Your task to perform on an android device: set the timer Image 0: 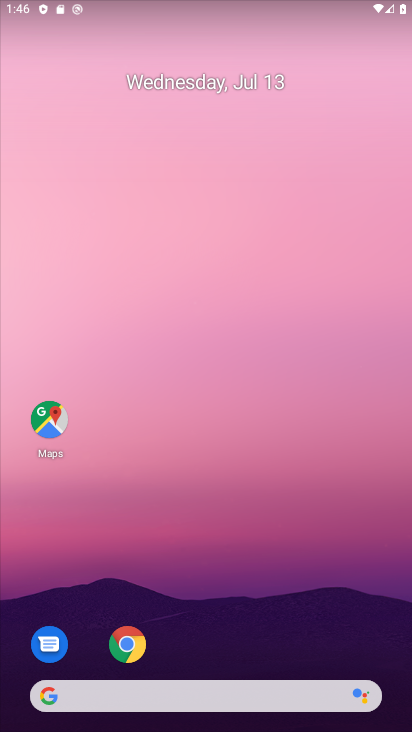
Step 0: drag from (216, 636) to (294, 2)
Your task to perform on an android device: set the timer Image 1: 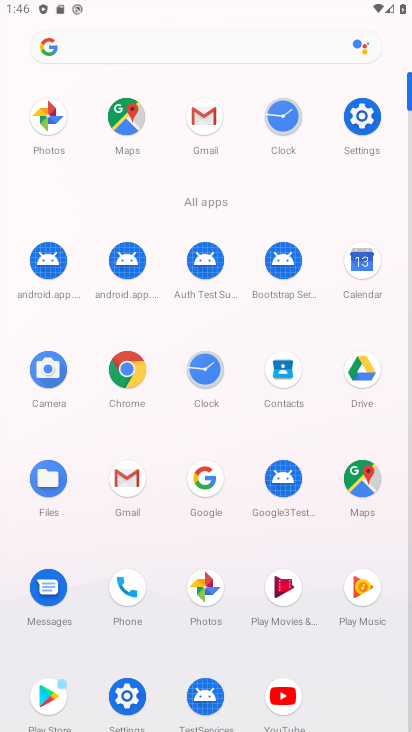
Step 1: click (286, 119)
Your task to perform on an android device: set the timer Image 2: 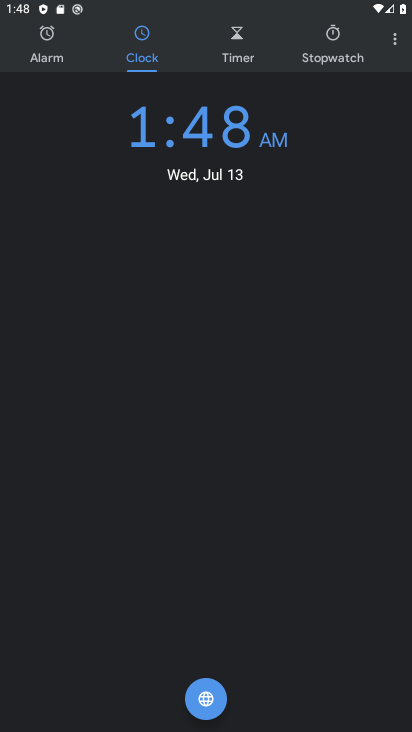
Step 2: click (242, 35)
Your task to perform on an android device: set the timer Image 3: 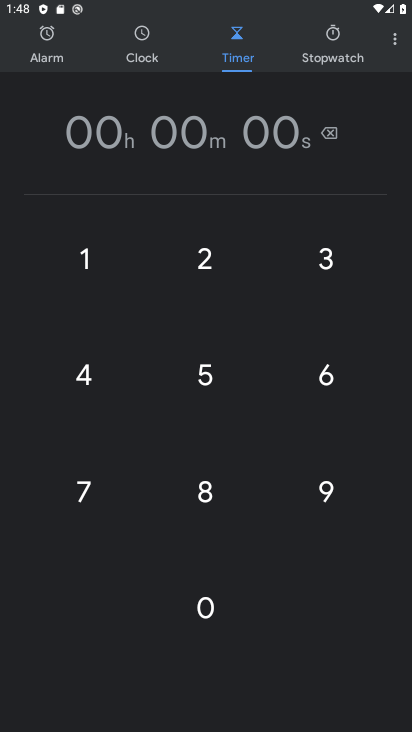
Step 3: click (216, 329)
Your task to perform on an android device: set the timer Image 4: 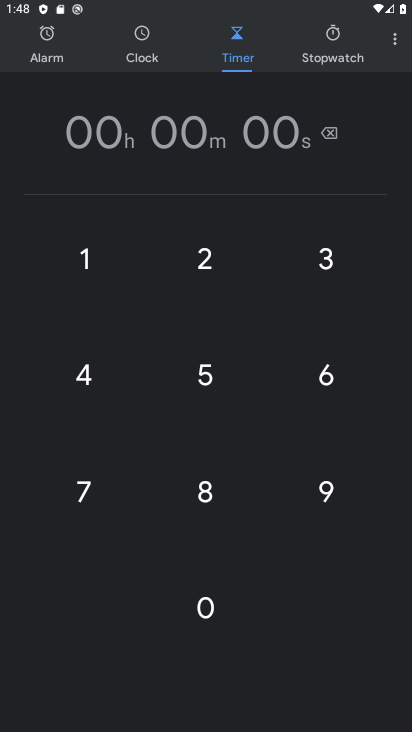
Step 4: click (203, 257)
Your task to perform on an android device: set the timer Image 5: 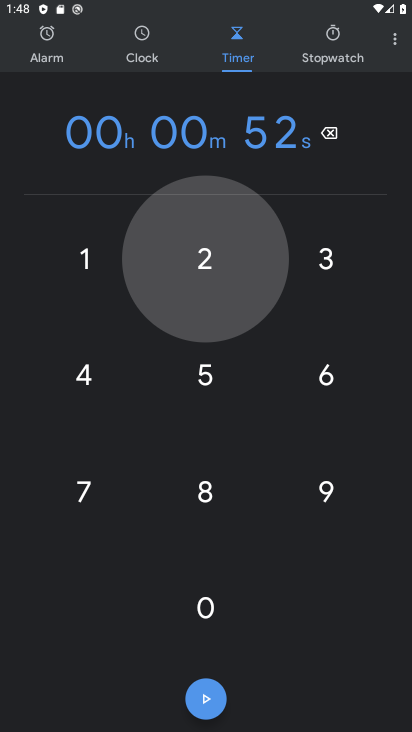
Step 5: click (221, 319)
Your task to perform on an android device: set the timer Image 6: 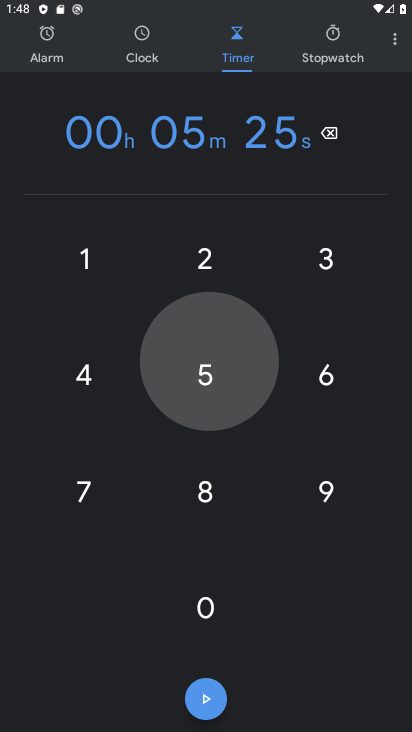
Step 6: click (317, 244)
Your task to perform on an android device: set the timer Image 7: 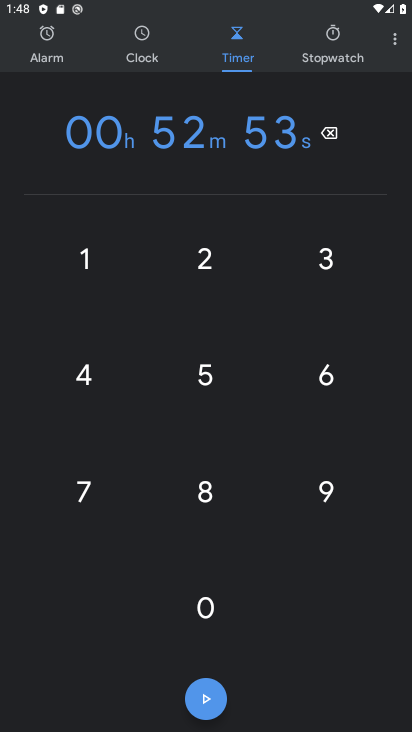
Step 7: task complete